Your task to perform on an android device: check google app version Image 0: 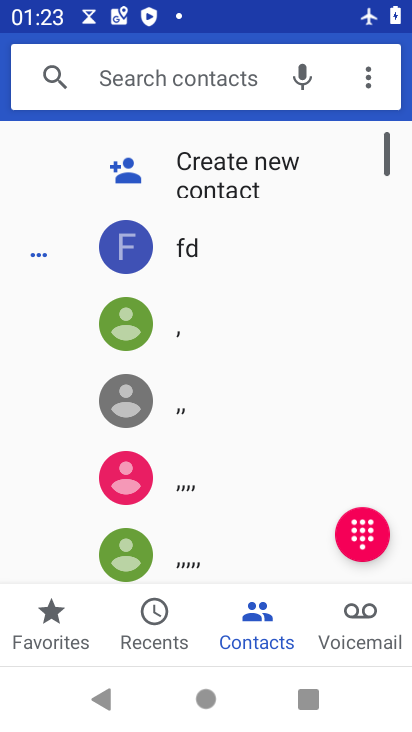
Step 0: press home button
Your task to perform on an android device: check google app version Image 1: 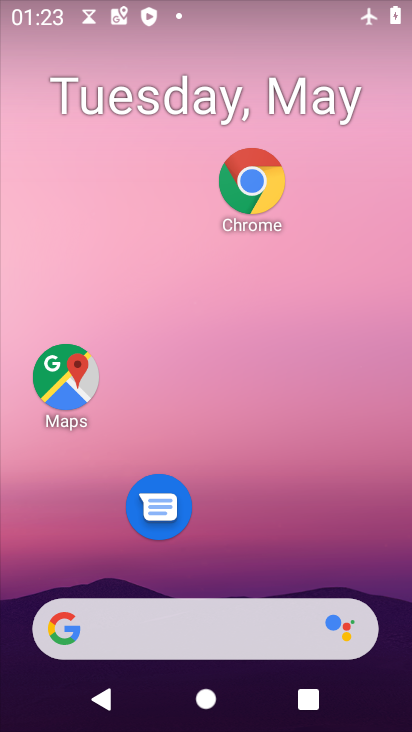
Step 1: drag from (351, 296) to (372, 165)
Your task to perform on an android device: check google app version Image 2: 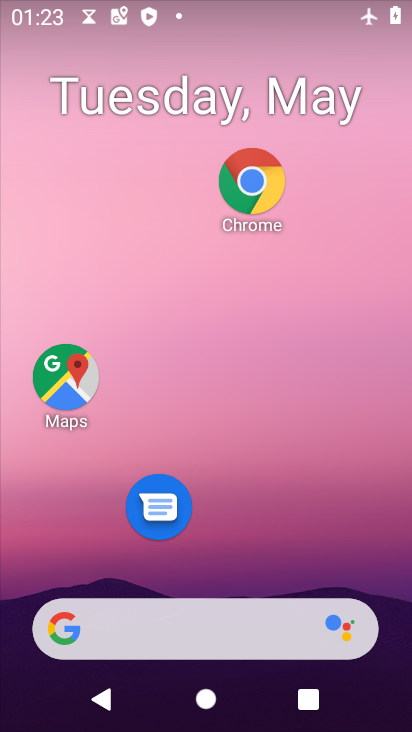
Step 2: drag from (295, 457) to (293, 249)
Your task to perform on an android device: check google app version Image 3: 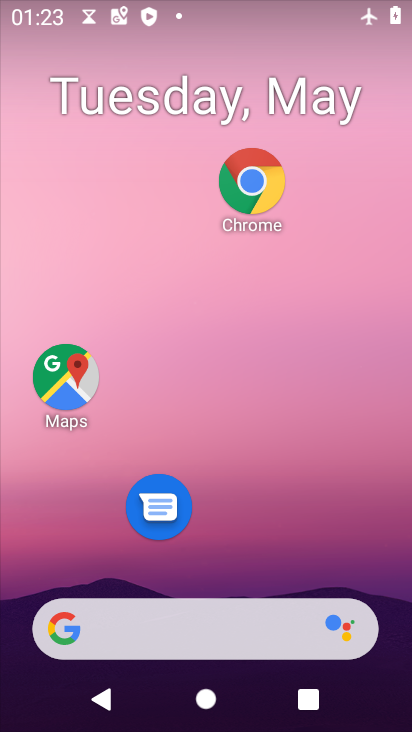
Step 3: drag from (250, 543) to (309, 253)
Your task to perform on an android device: check google app version Image 4: 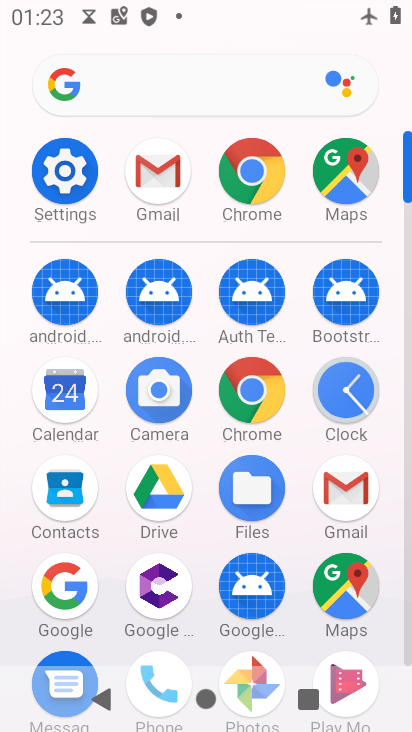
Step 4: drag from (212, 535) to (218, 364)
Your task to perform on an android device: check google app version Image 5: 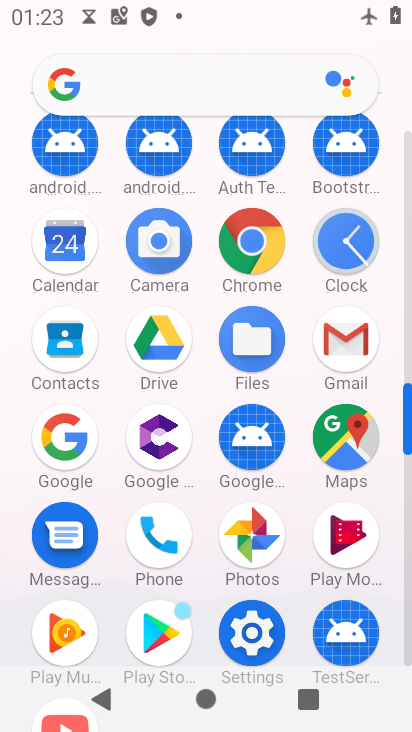
Step 5: drag from (202, 557) to (209, 342)
Your task to perform on an android device: check google app version Image 6: 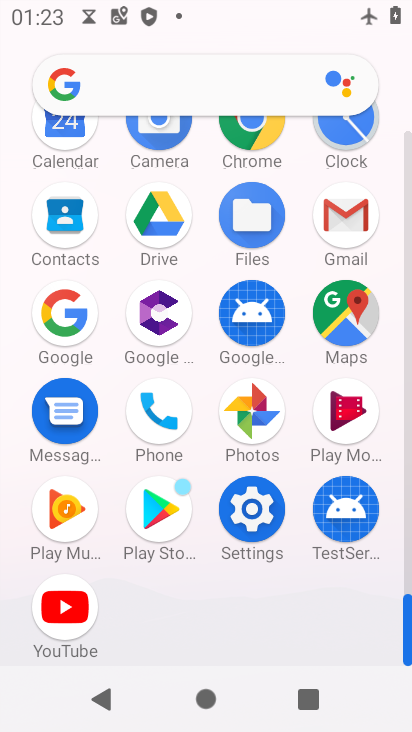
Step 6: click (68, 297)
Your task to perform on an android device: check google app version Image 7: 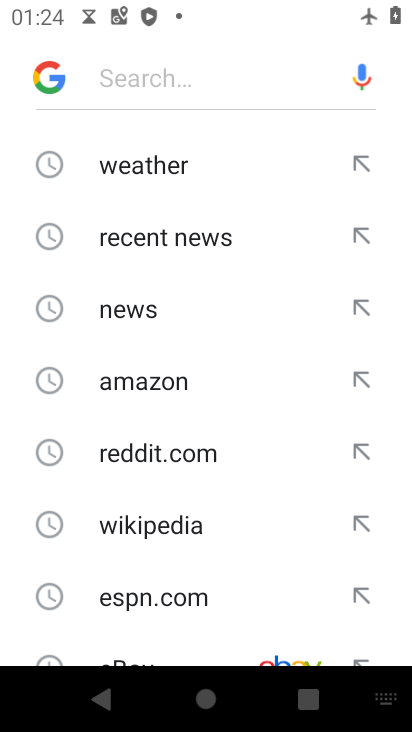
Step 7: press home button
Your task to perform on an android device: check google app version Image 8: 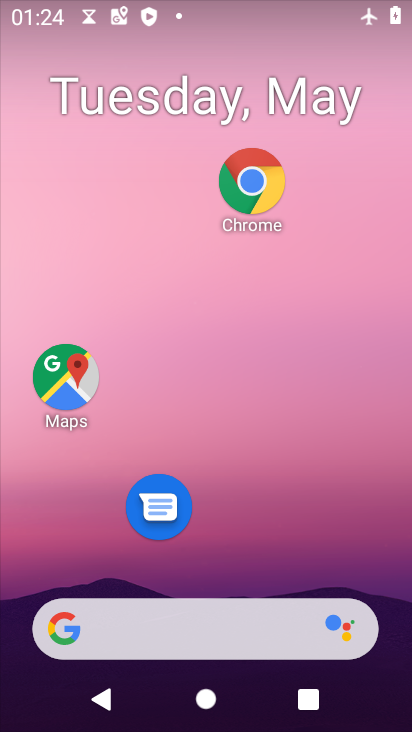
Step 8: drag from (301, 543) to (300, 181)
Your task to perform on an android device: check google app version Image 9: 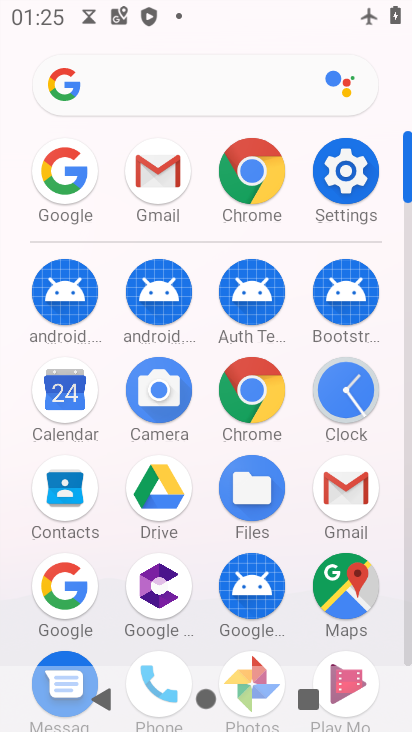
Step 9: click (58, 583)
Your task to perform on an android device: check google app version Image 10: 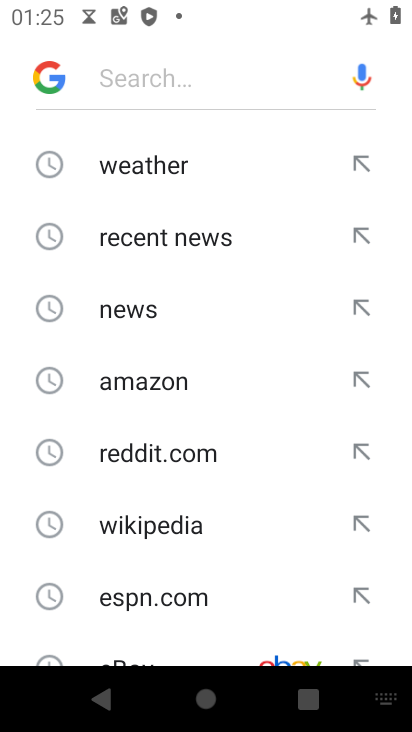
Step 10: click (48, 73)
Your task to perform on an android device: check google app version Image 11: 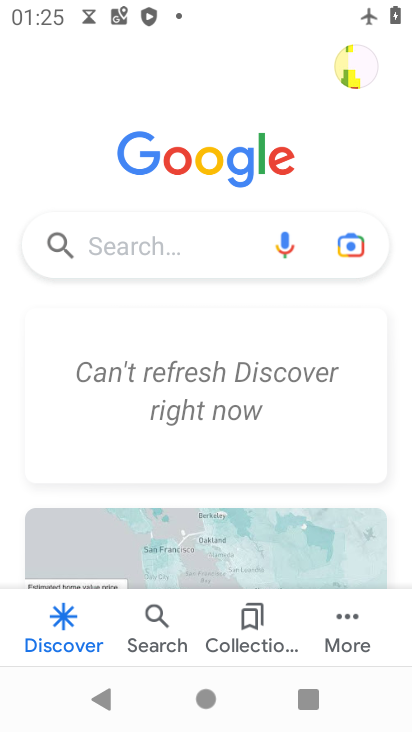
Step 11: click (345, 627)
Your task to perform on an android device: check google app version Image 12: 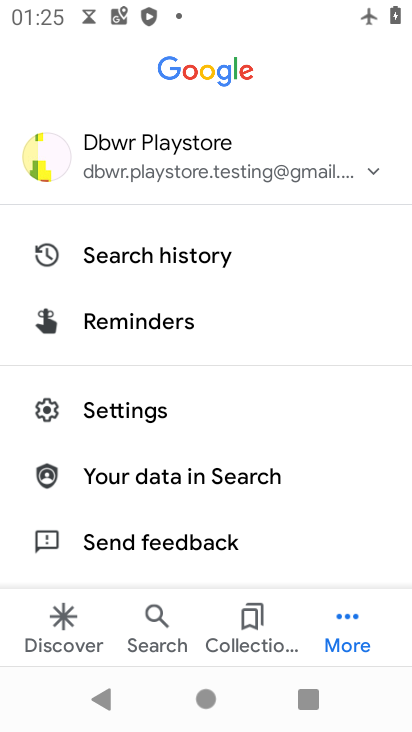
Step 12: click (135, 407)
Your task to perform on an android device: check google app version Image 13: 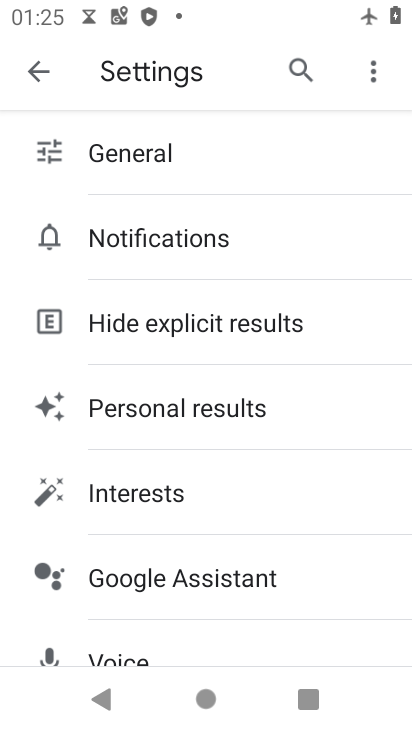
Step 13: task complete